Your task to perform on an android device: What's on my calendar tomorrow? Image 0: 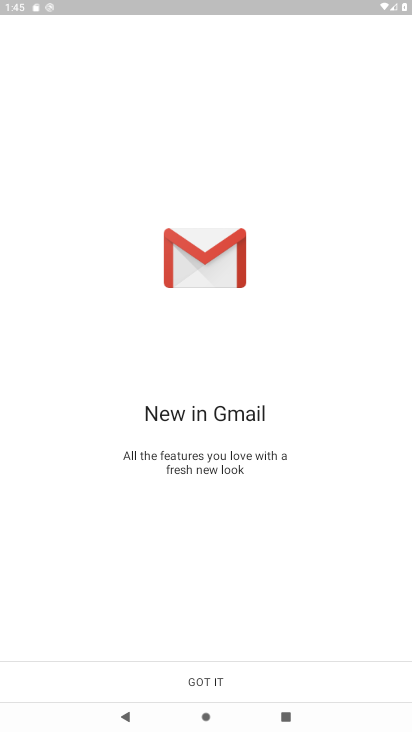
Step 0: drag from (198, 633) to (316, 579)
Your task to perform on an android device: What's on my calendar tomorrow? Image 1: 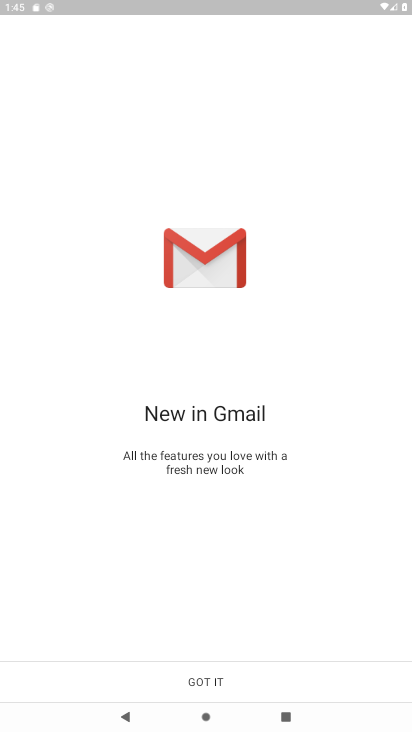
Step 1: press home button
Your task to perform on an android device: What's on my calendar tomorrow? Image 2: 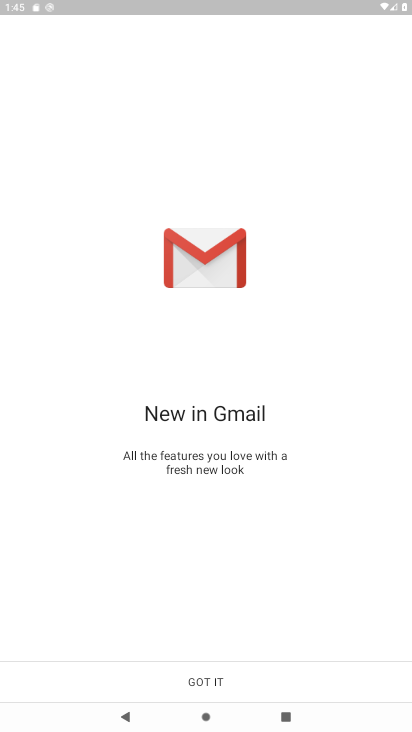
Step 2: drag from (316, 579) to (390, 429)
Your task to perform on an android device: What's on my calendar tomorrow? Image 3: 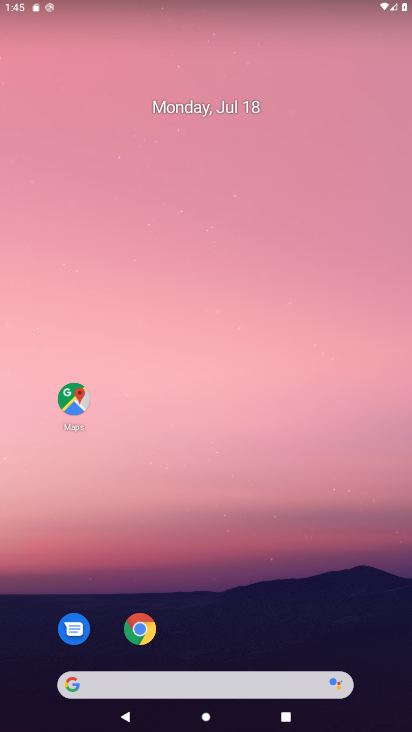
Step 3: drag from (231, 608) to (222, 10)
Your task to perform on an android device: What's on my calendar tomorrow? Image 4: 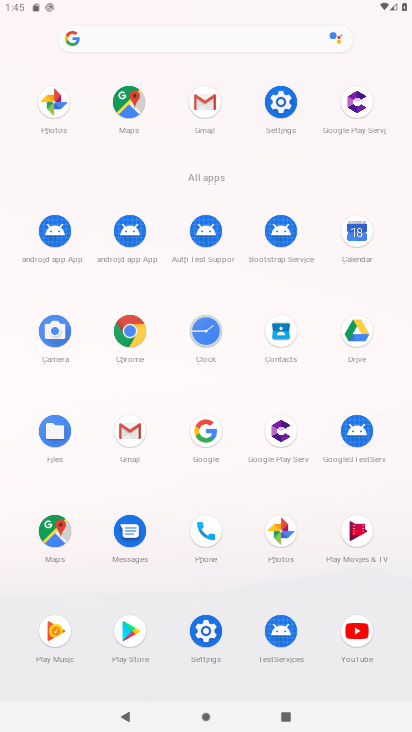
Step 4: click (347, 243)
Your task to perform on an android device: What's on my calendar tomorrow? Image 5: 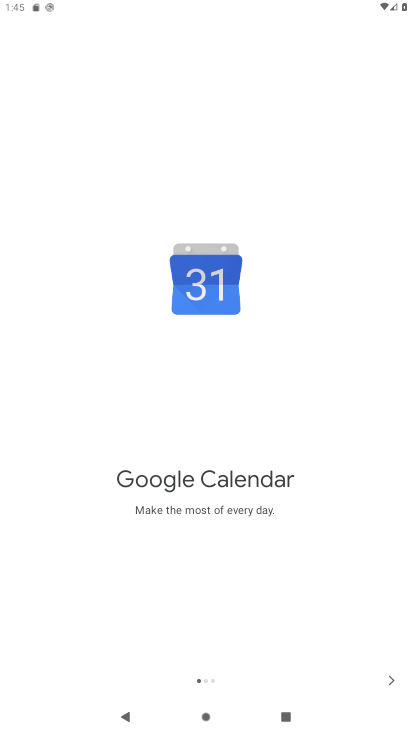
Step 5: click (389, 678)
Your task to perform on an android device: What's on my calendar tomorrow? Image 6: 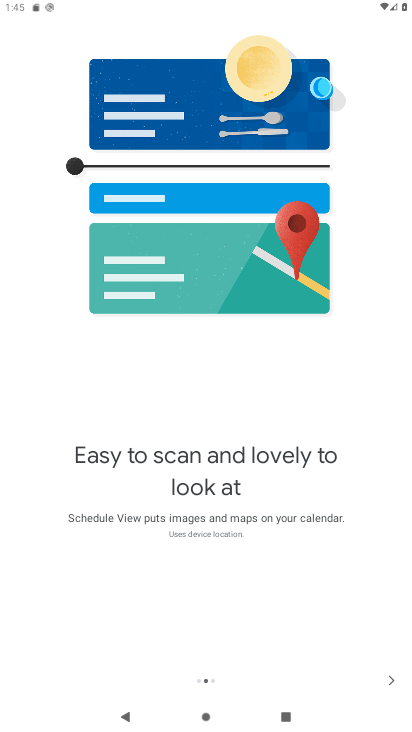
Step 6: click (389, 678)
Your task to perform on an android device: What's on my calendar tomorrow? Image 7: 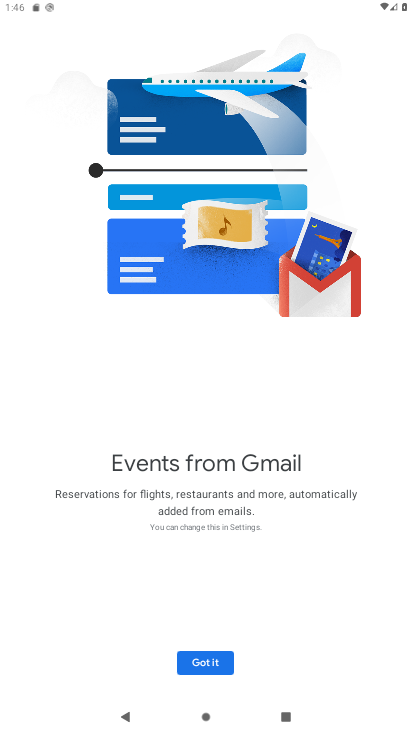
Step 7: click (210, 655)
Your task to perform on an android device: What's on my calendar tomorrow? Image 8: 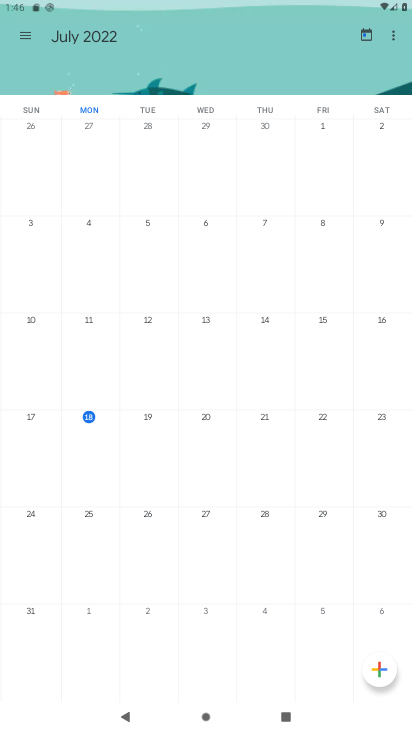
Step 8: click (141, 412)
Your task to perform on an android device: What's on my calendar tomorrow? Image 9: 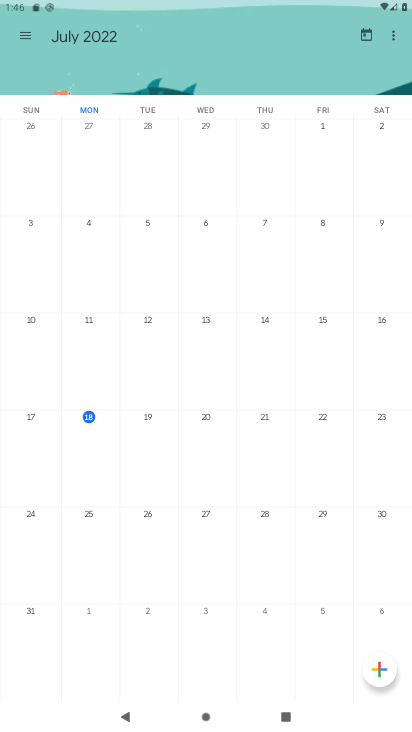
Step 9: click (141, 412)
Your task to perform on an android device: What's on my calendar tomorrow? Image 10: 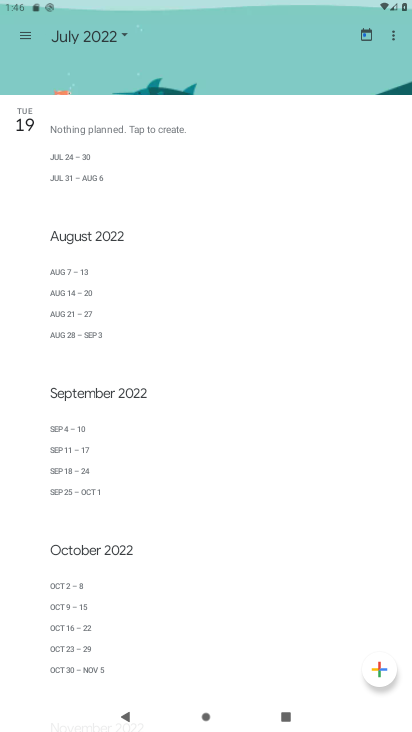
Step 10: task complete